Your task to perform on an android device: delete a single message in the gmail app Image 0: 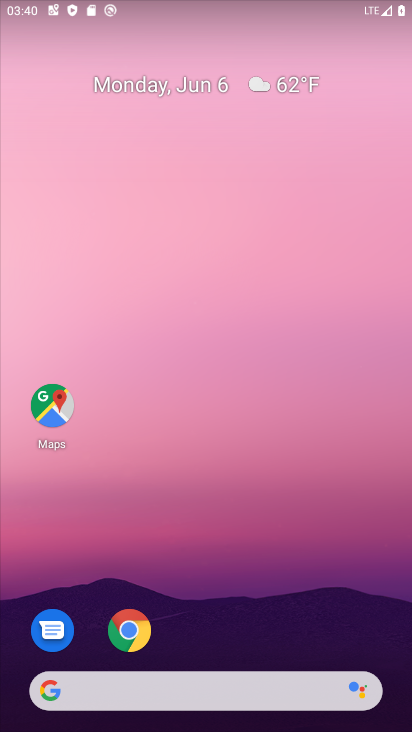
Step 0: drag from (234, 628) to (351, 112)
Your task to perform on an android device: delete a single message in the gmail app Image 1: 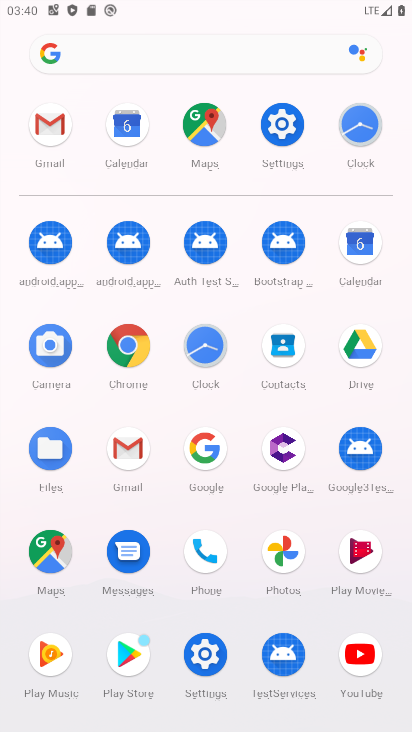
Step 1: click (125, 450)
Your task to perform on an android device: delete a single message in the gmail app Image 2: 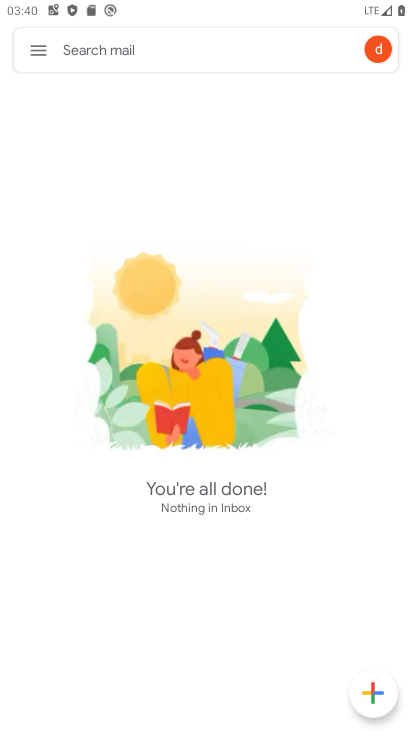
Step 2: task complete